Your task to perform on an android device: change the clock display to analog Image 0: 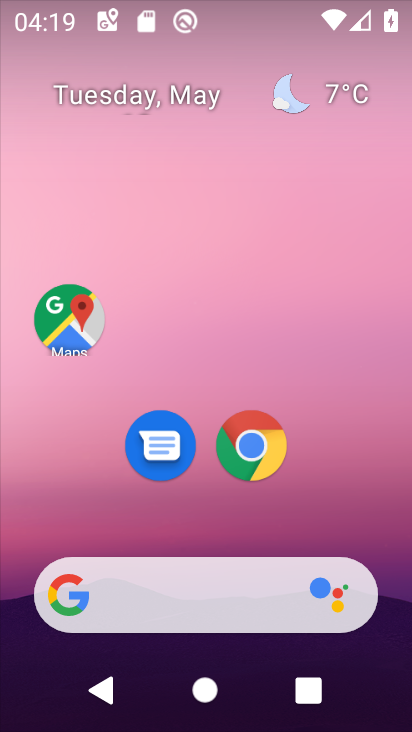
Step 0: drag from (238, 484) to (253, 15)
Your task to perform on an android device: change the clock display to analog Image 1: 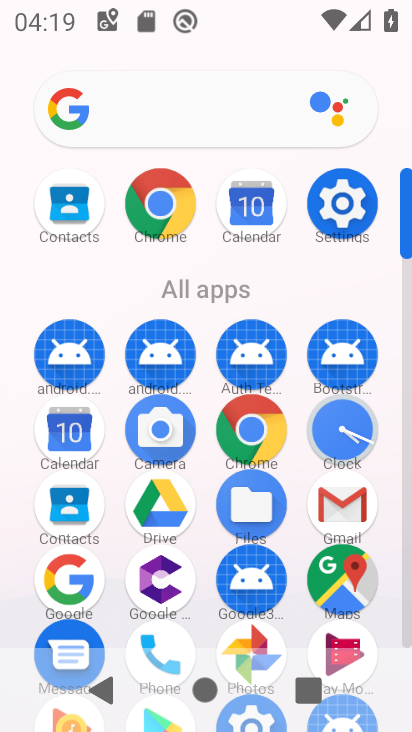
Step 1: click (354, 432)
Your task to perform on an android device: change the clock display to analog Image 2: 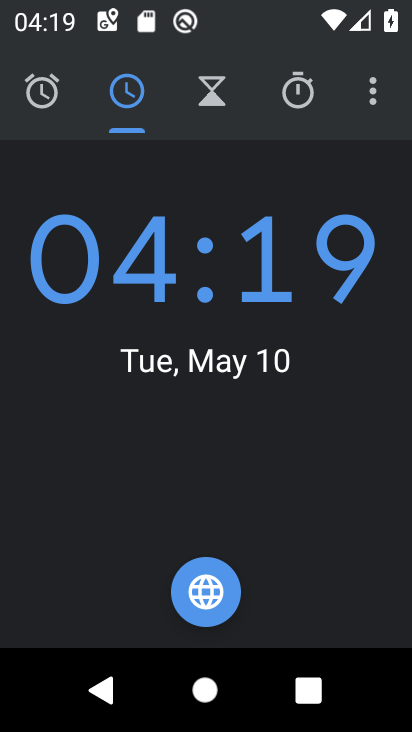
Step 2: click (380, 87)
Your task to perform on an android device: change the clock display to analog Image 3: 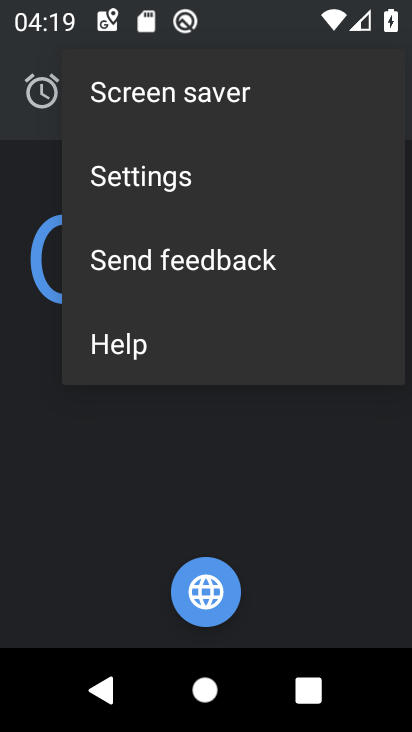
Step 3: click (189, 198)
Your task to perform on an android device: change the clock display to analog Image 4: 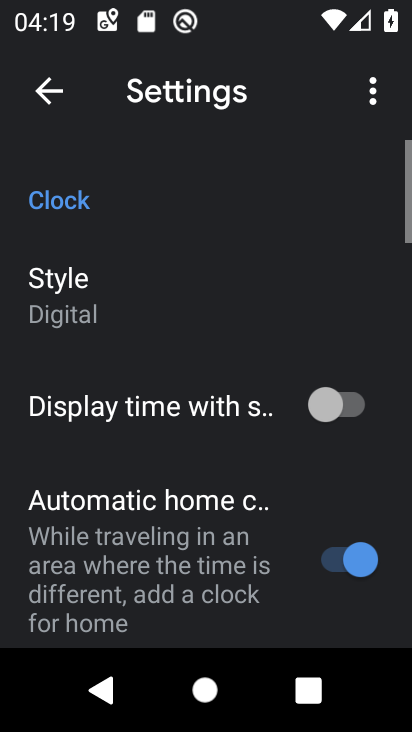
Step 4: click (92, 316)
Your task to perform on an android device: change the clock display to analog Image 5: 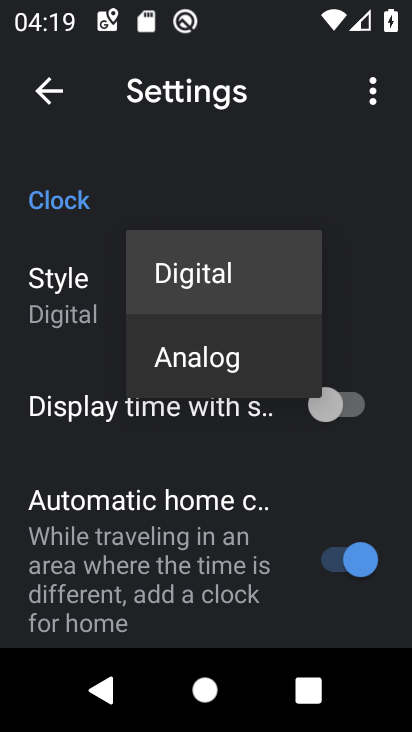
Step 5: click (184, 358)
Your task to perform on an android device: change the clock display to analog Image 6: 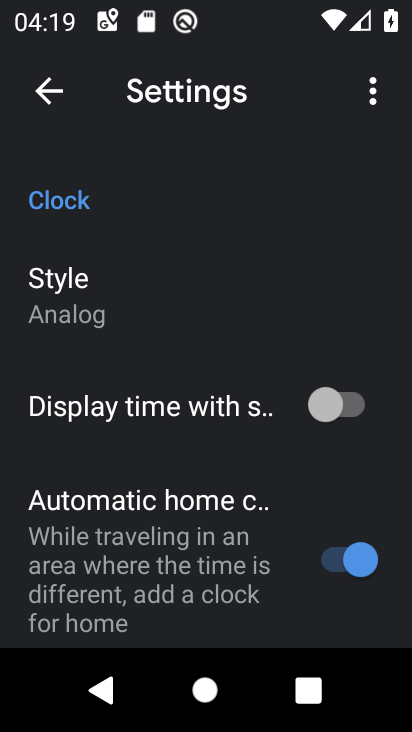
Step 6: task complete